Your task to perform on an android device: set the stopwatch Image 0: 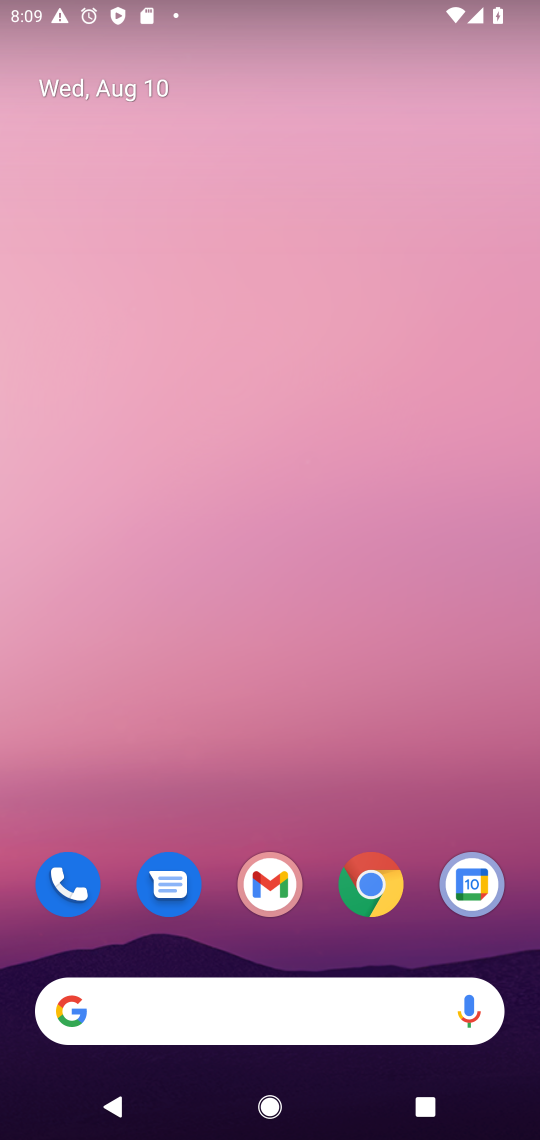
Step 0: drag from (35, 1079) to (224, 228)
Your task to perform on an android device: set the stopwatch Image 1: 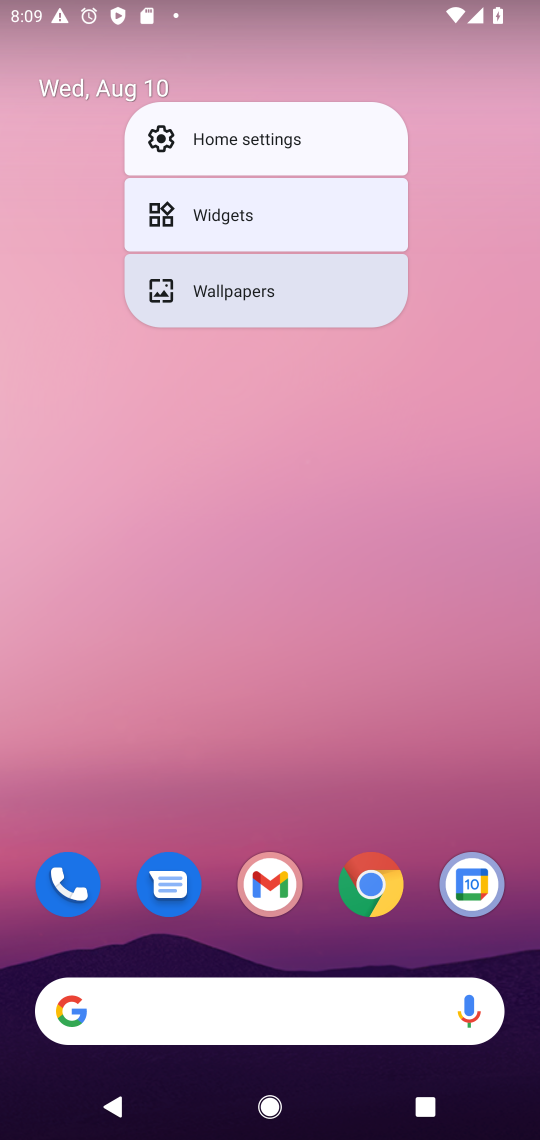
Step 1: task complete